Your task to perform on an android device: Search for a new lawnmower on Lowes.com Image 0: 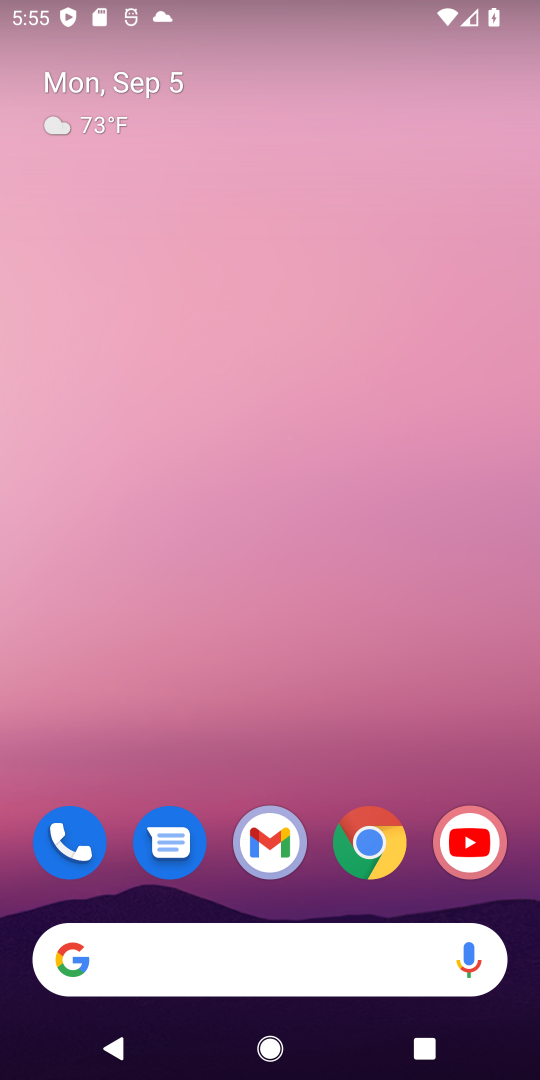
Step 0: click (370, 841)
Your task to perform on an android device: Search for a new lawnmower on Lowes.com Image 1: 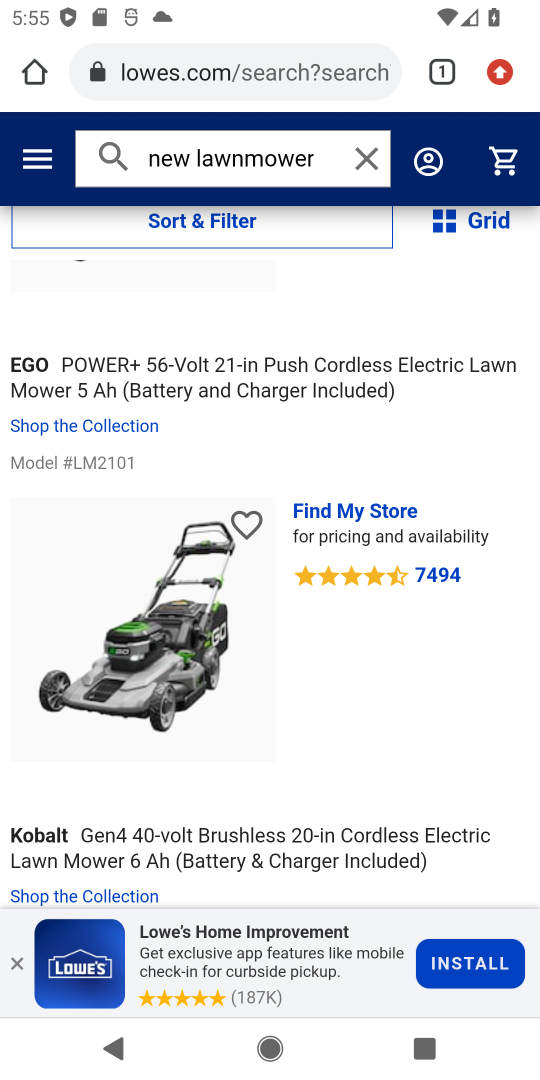
Step 1: click (343, 69)
Your task to perform on an android device: Search for a new lawnmower on Lowes.com Image 2: 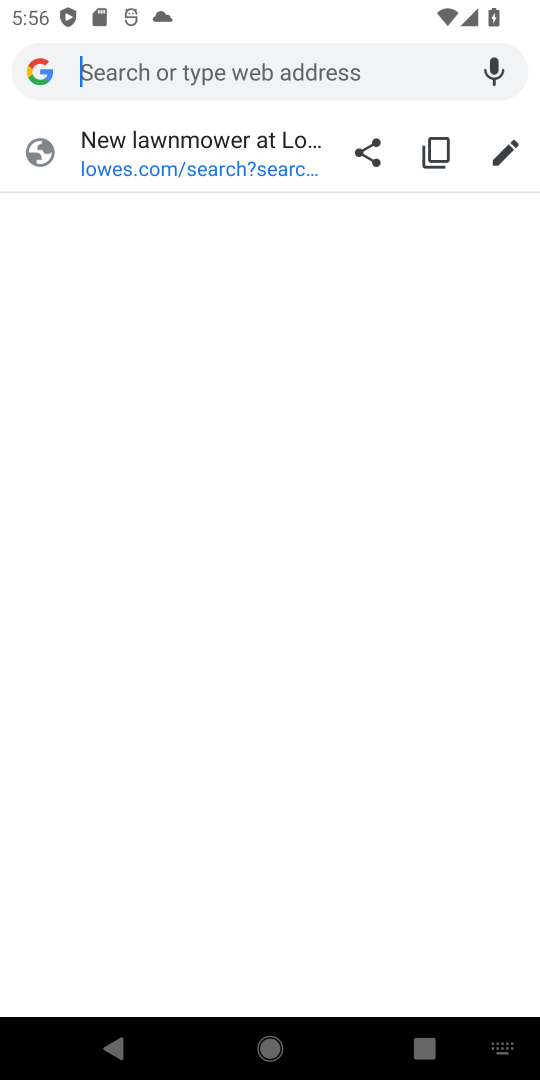
Step 2: type "Lowes.com"
Your task to perform on an android device: Search for a new lawnmower on Lowes.com Image 3: 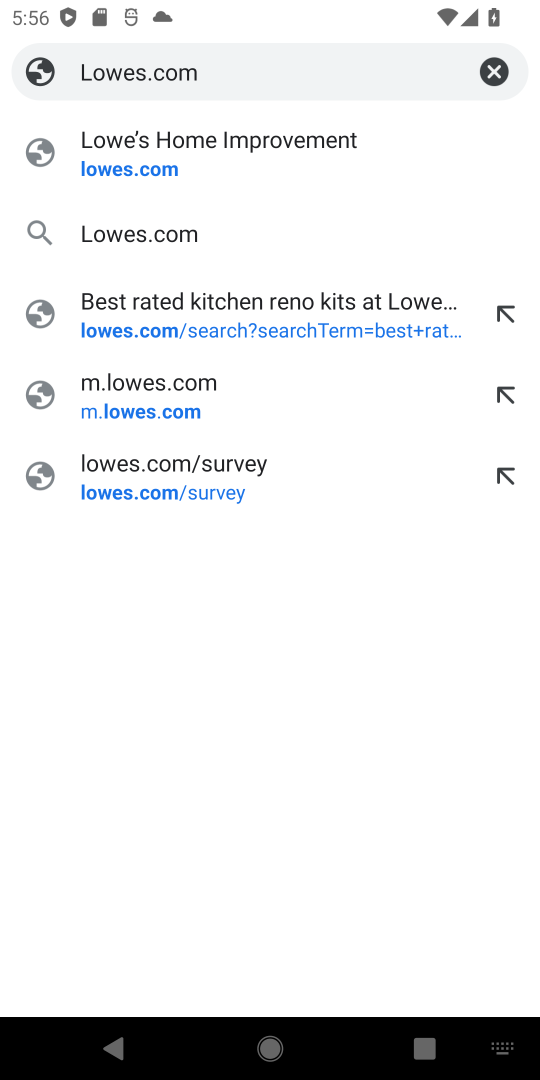
Step 3: click (170, 237)
Your task to perform on an android device: Search for a new lawnmower on Lowes.com Image 4: 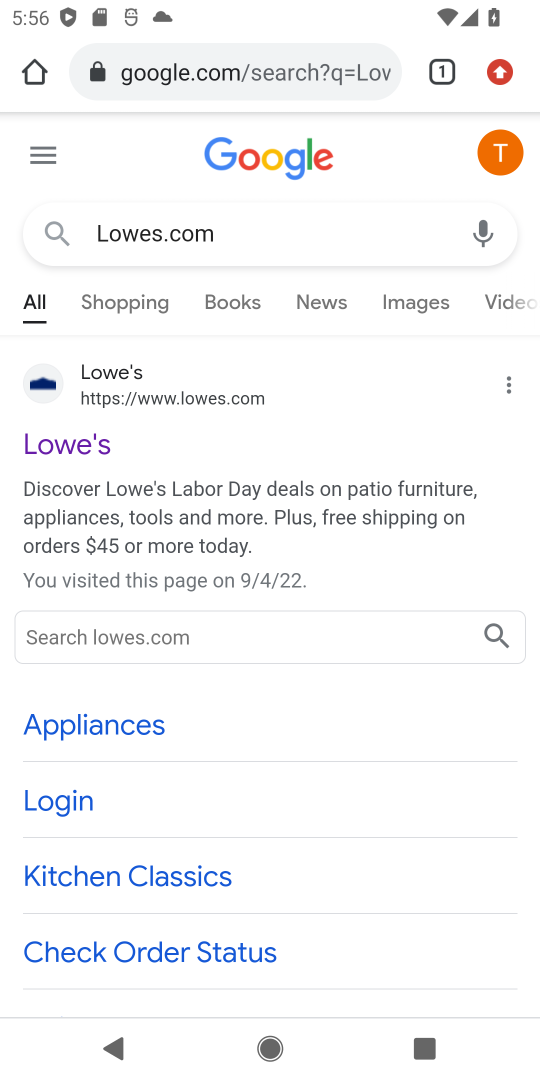
Step 4: click (144, 449)
Your task to perform on an android device: Search for a new lawnmower on Lowes.com Image 5: 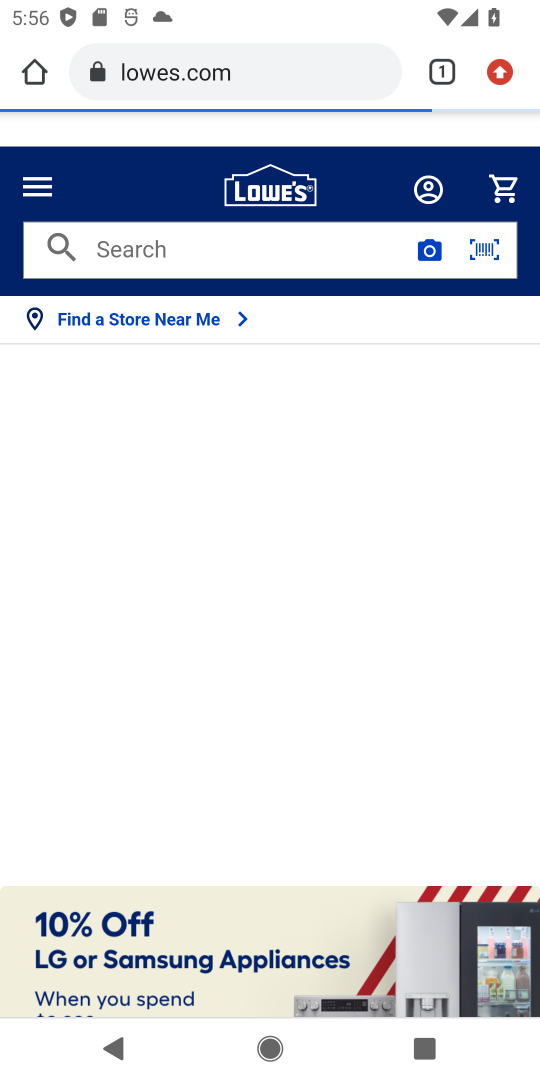
Step 5: click (233, 257)
Your task to perform on an android device: Search for a new lawnmower on Lowes.com Image 6: 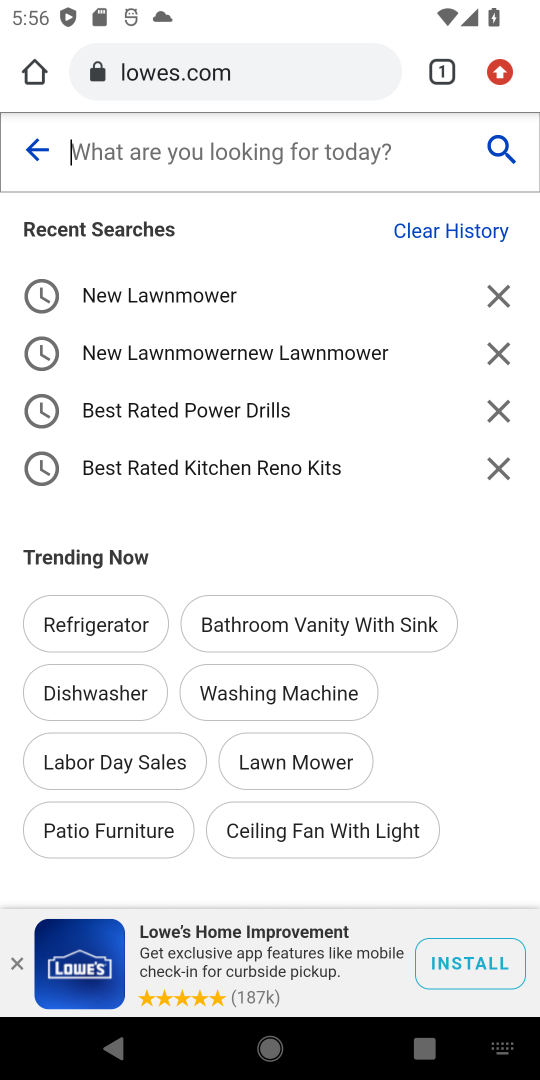
Step 6: click (151, 174)
Your task to perform on an android device: Search for a new lawnmower on Lowes.com Image 7: 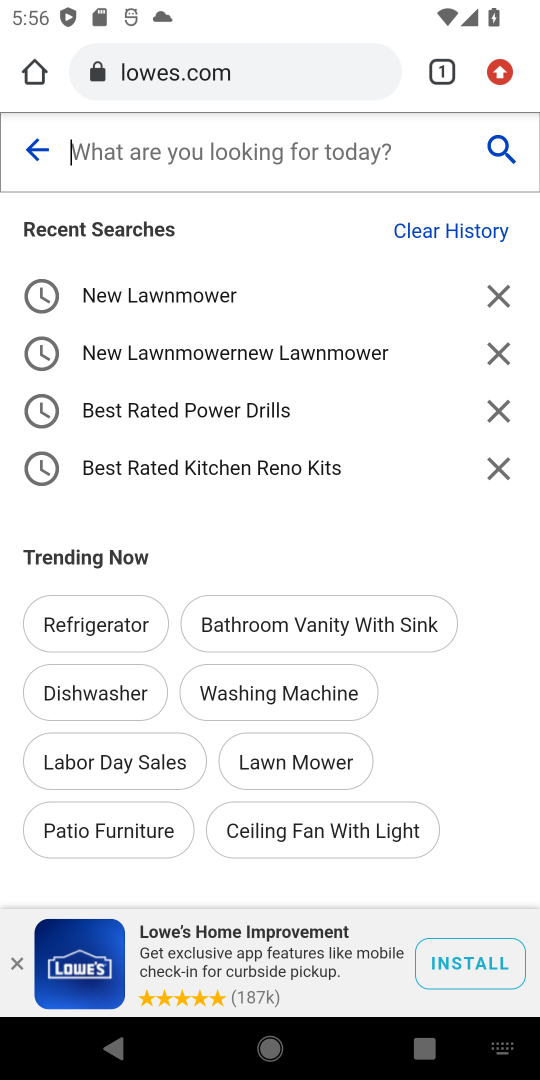
Step 7: type "new lawnmower"
Your task to perform on an android device: Search for a new lawnmower on Lowes.com Image 8: 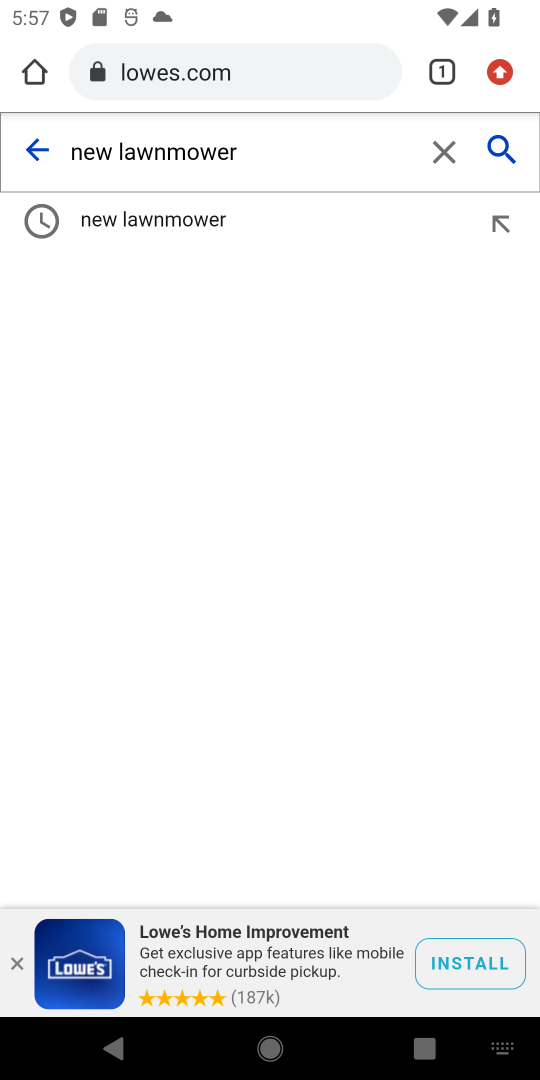
Step 8: click (490, 153)
Your task to perform on an android device: Search for a new lawnmower on Lowes.com Image 9: 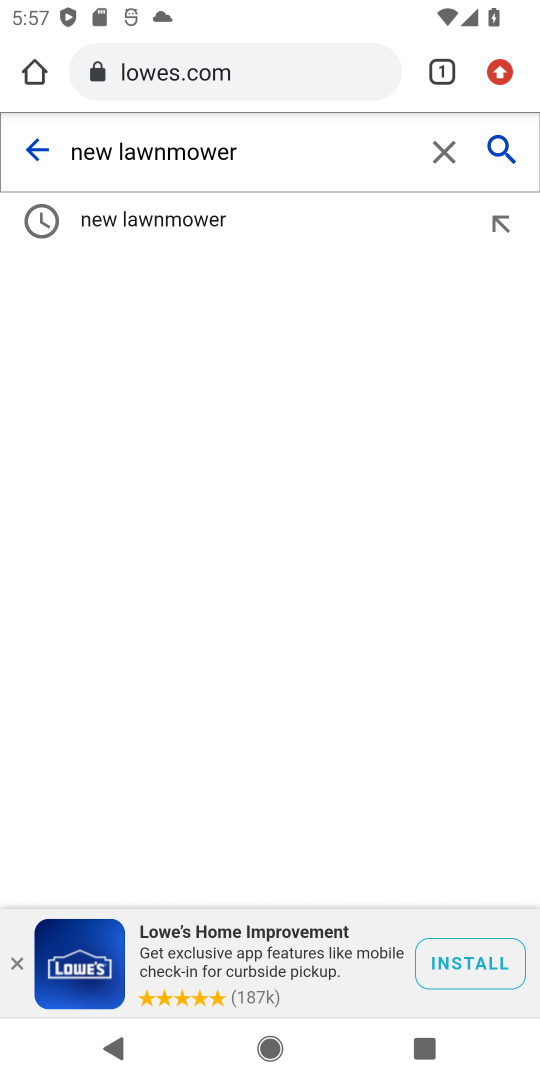
Step 9: click (491, 144)
Your task to perform on an android device: Search for a new lawnmower on Lowes.com Image 10: 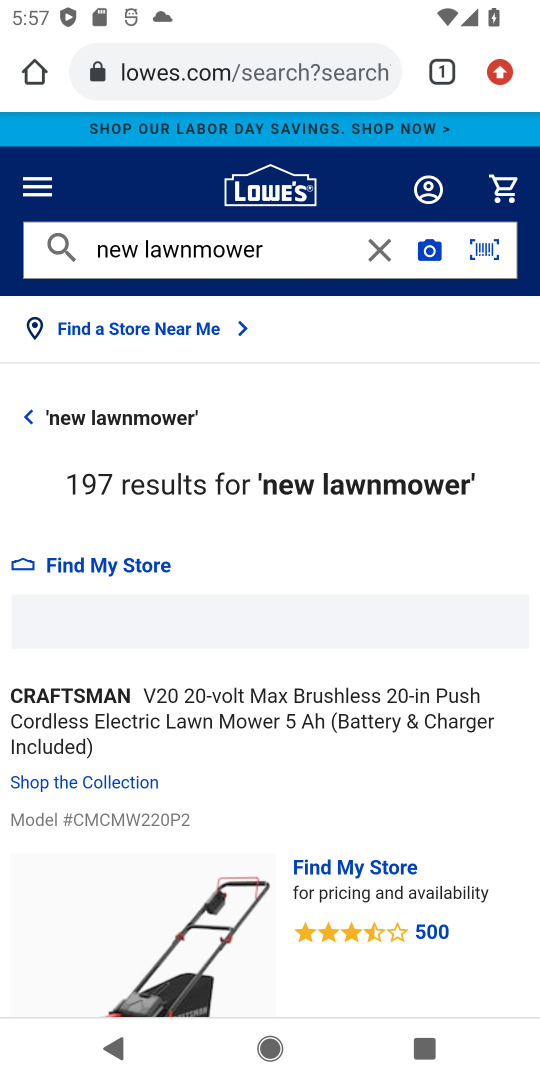
Step 10: task complete